Your task to perform on an android device: clear history in the chrome app Image 0: 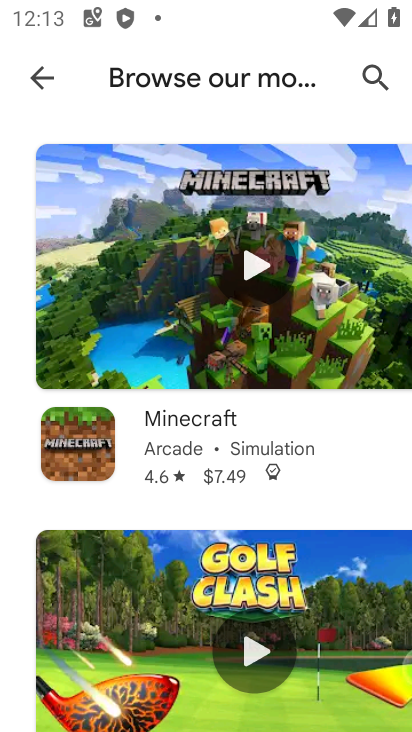
Step 0: press home button
Your task to perform on an android device: clear history in the chrome app Image 1: 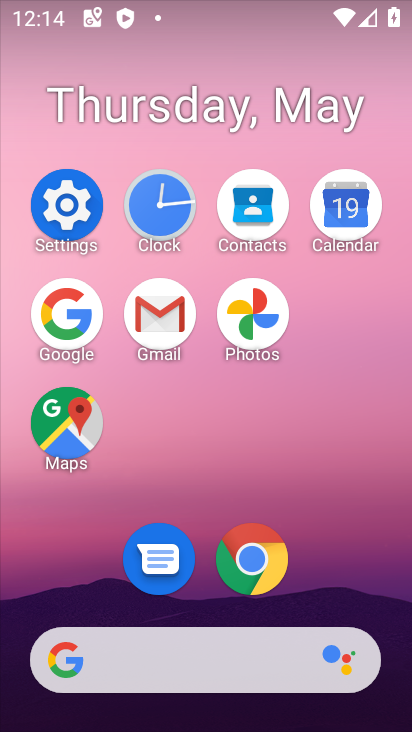
Step 1: click (260, 581)
Your task to perform on an android device: clear history in the chrome app Image 2: 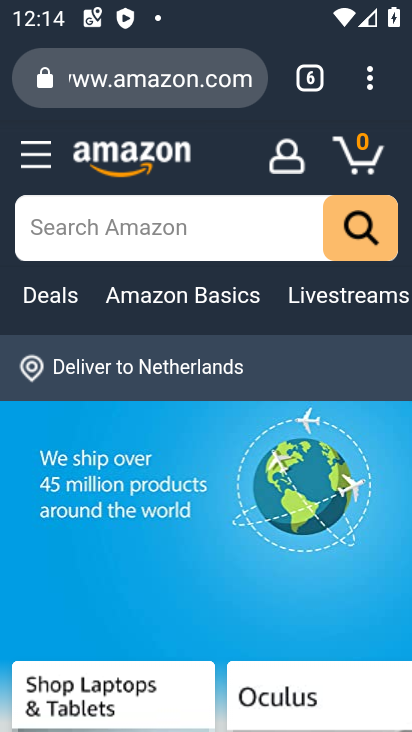
Step 2: click (378, 82)
Your task to perform on an android device: clear history in the chrome app Image 3: 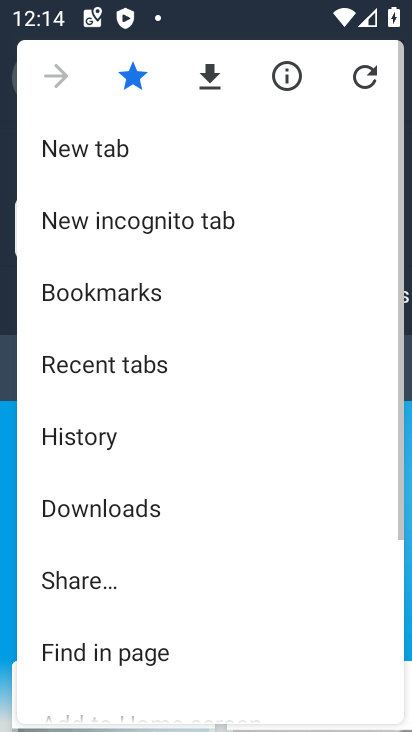
Step 3: click (127, 440)
Your task to perform on an android device: clear history in the chrome app Image 4: 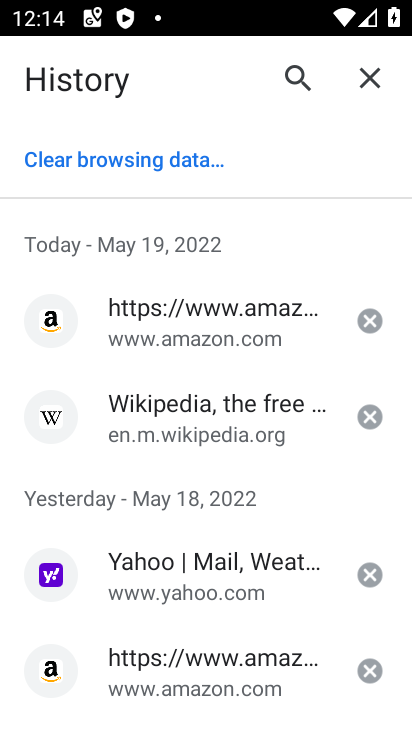
Step 4: click (143, 164)
Your task to perform on an android device: clear history in the chrome app Image 5: 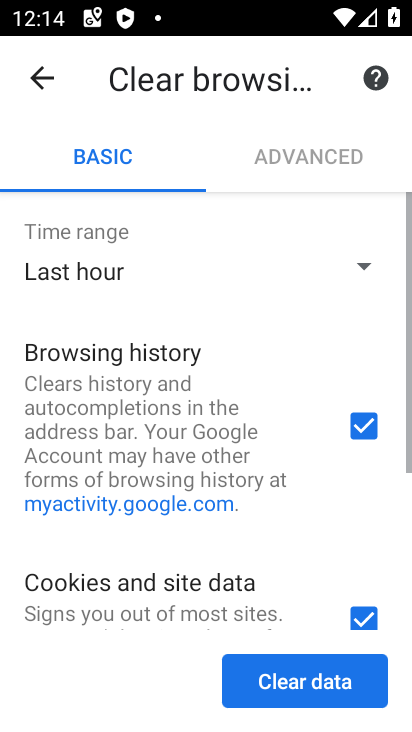
Step 5: click (334, 670)
Your task to perform on an android device: clear history in the chrome app Image 6: 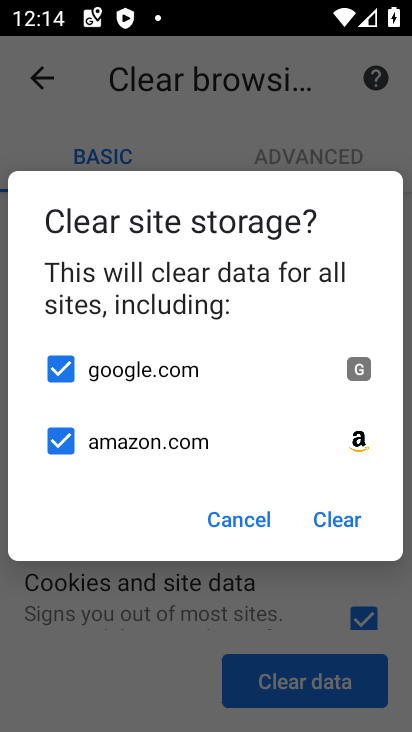
Step 6: click (350, 517)
Your task to perform on an android device: clear history in the chrome app Image 7: 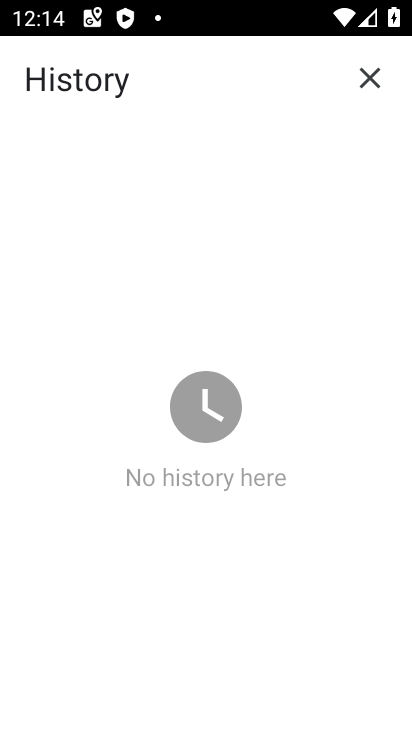
Step 7: task complete